Your task to perform on an android device: set the stopwatch Image 0: 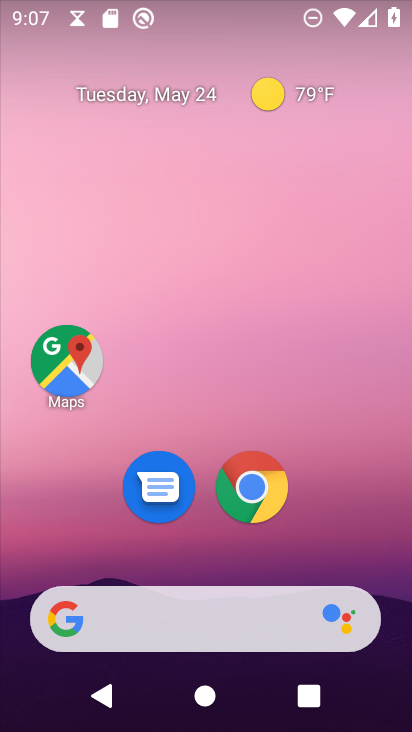
Step 0: drag from (39, 486) to (168, 184)
Your task to perform on an android device: set the stopwatch Image 1: 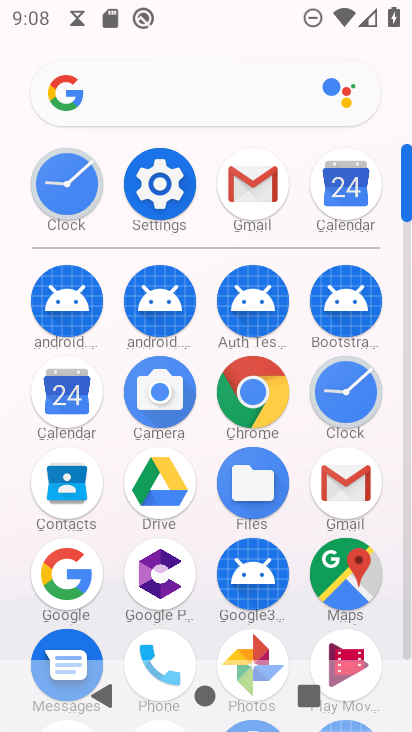
Step 1: click (358, 378)
Your task to perform on an android device: set the stopwatch Image 2: 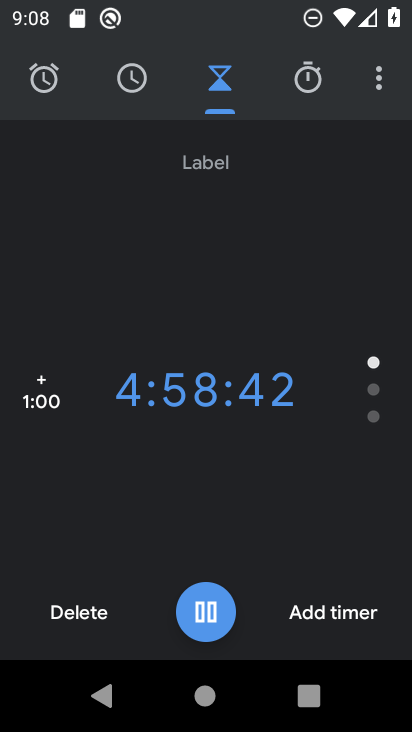
Step 2: click (294, 79)
Your task to perform on an android device: set the stopwatch Image 3: 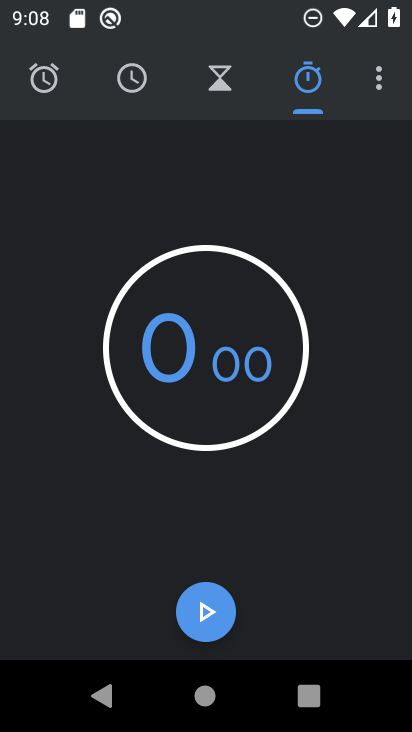
Step 3: click (201, 612)
Your task to perform on an android device: set the stopwatch Image 4: 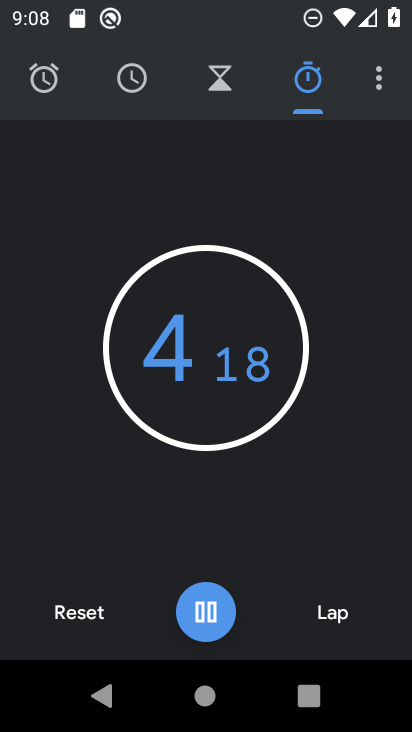
Step 4: task complete